Your task to perform on an android device: Open wifi settings Image 0: 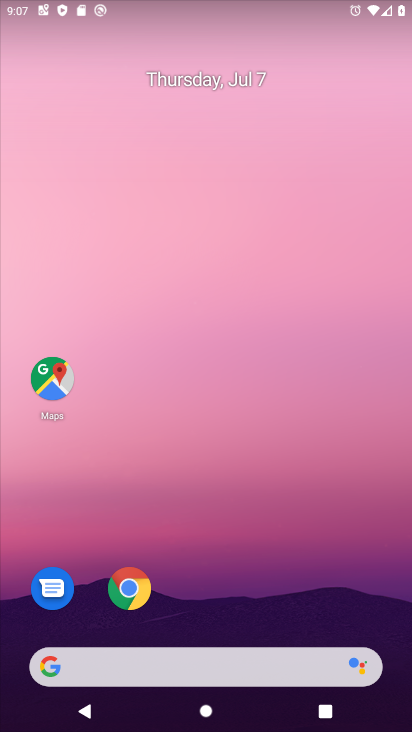
Step 0: press home button
Your task to perform on an android device: Open wifi settings Image 1: 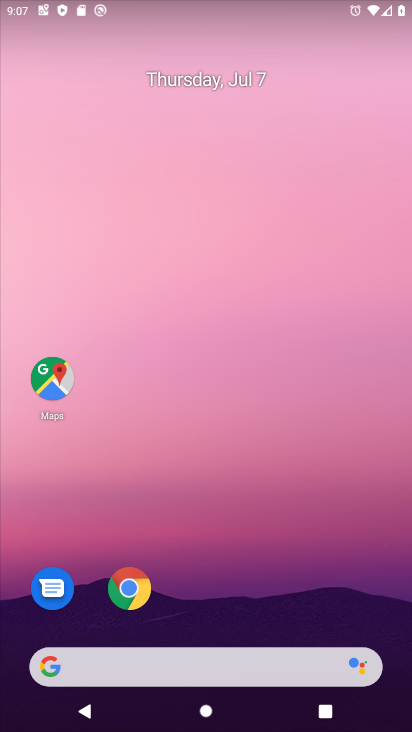
Step 1: drag from (243, 610) to (257, 35)
Your task to perform on an android device: Open wifi settings Image 2: 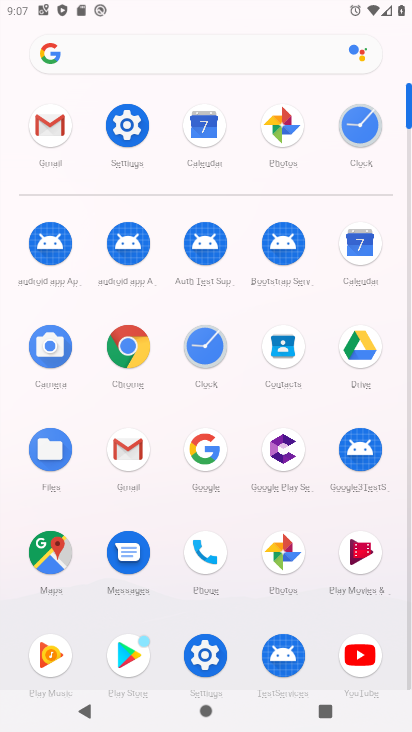
Step 2: click (129, 120)
Your task to perform on an android device: Open wifi settings Image 3: 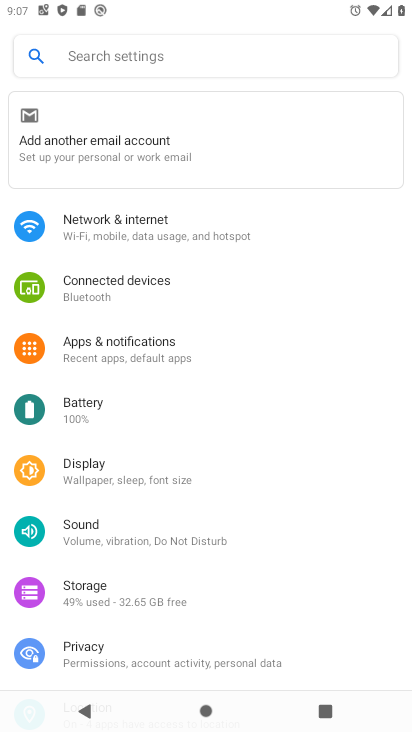
Step 3: click (153, 219)
Your task to perform on an android device: Open wifi settings Image 4: 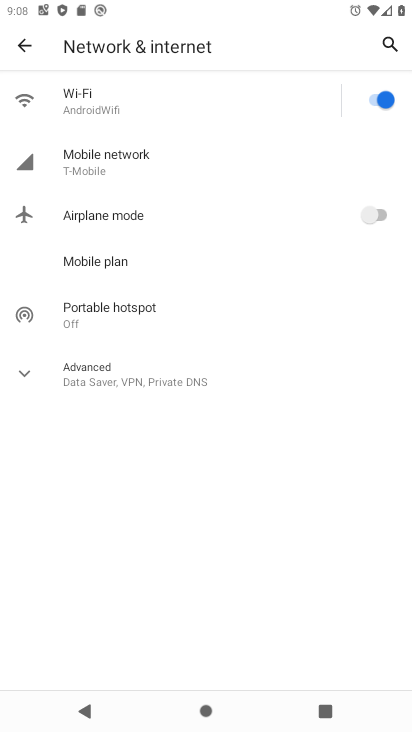
Step 4: click (112, 97)
Your task to perform on an android device: Open wifi settings Image 5: 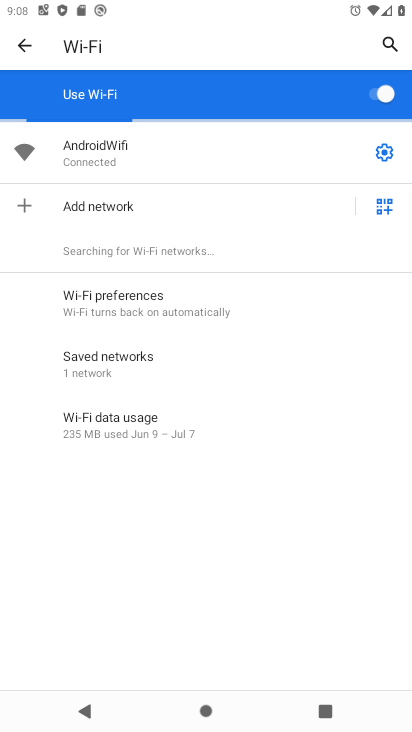
Step 5: click (118, 130)
Your task to perform on an android device: Open wifi settings Image 6: 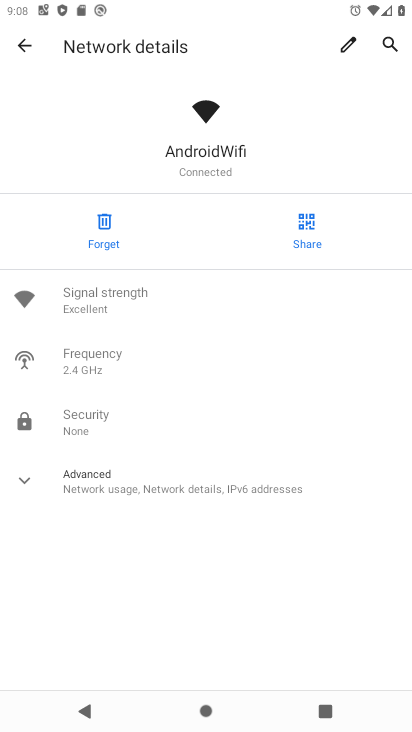
Step 6: task complete